Your task to perform on an android device: find which apps use the phone's location Image 0: 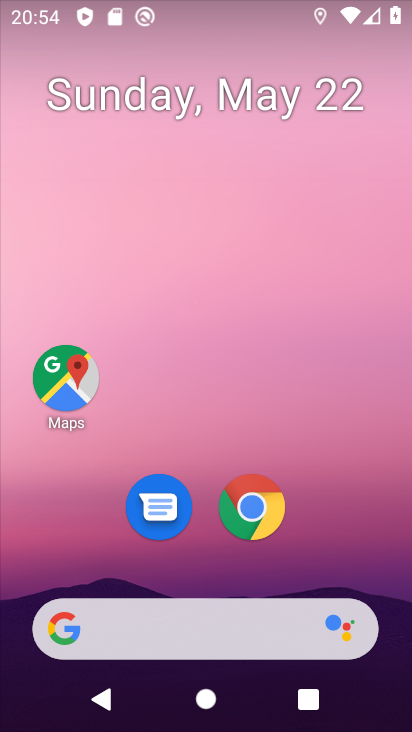
Step 0: drag from (223, 592) to (99, 112)
Your task to perform on an android device: find which apps use the phone's location Image 1: 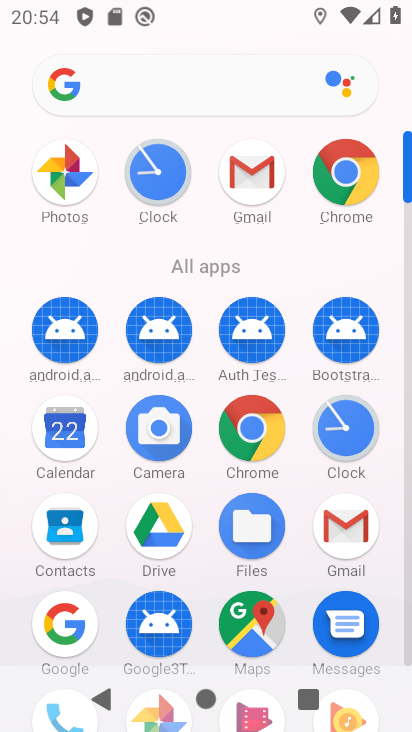
Step 1: drag from (217, 572) to (109, 232)
Your task to perform on an android device: find which apps use the phone's location Image 2: 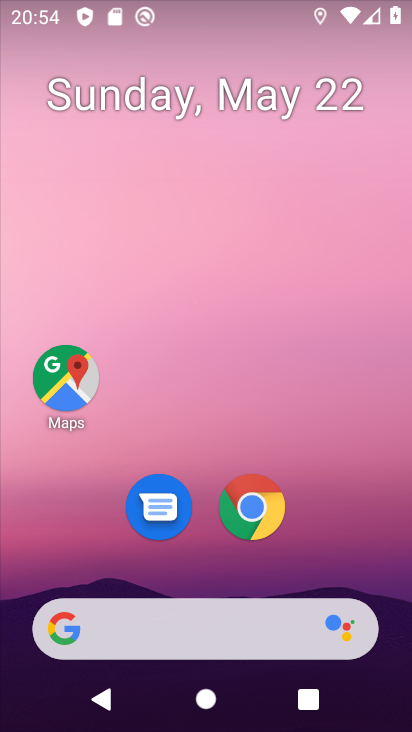
Step 2: drag from (206, 592) to (122, 163)
Your task to perform on an android device: find which apps use the phone's location Image 3: 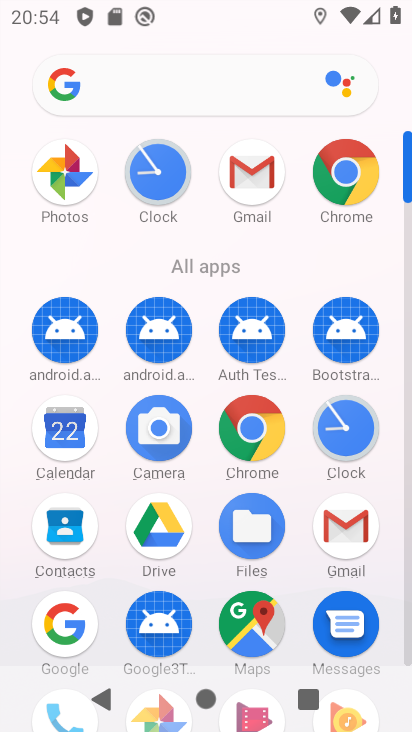
Step 3: drag from (210, 583) to (139, 117)
Your task to perform on an android device: find which apps use the phone's location Image 4: 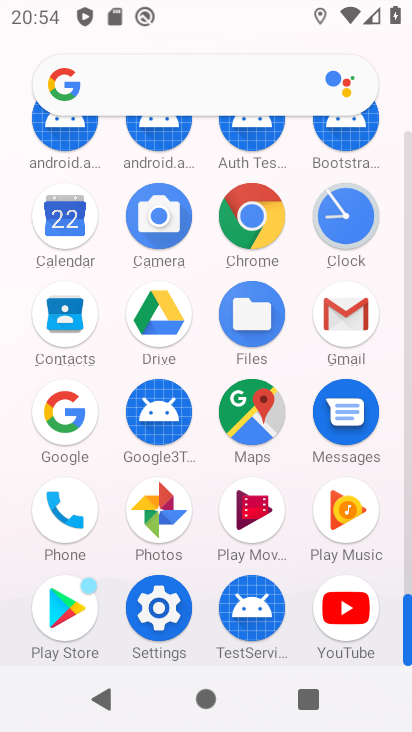
Step 4: click (166, 604)
Your task to perform on an android device: find which apps use the phone's location Image 5: 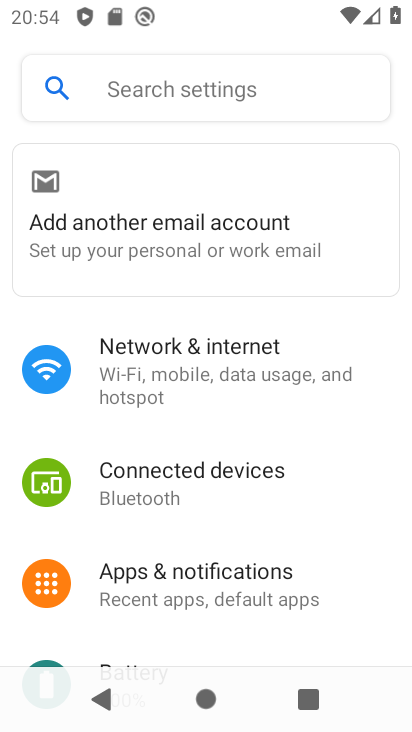
Step 5: click (166, 604)
Your task to perform on an android device: find which apps use the phone's location Image 6: 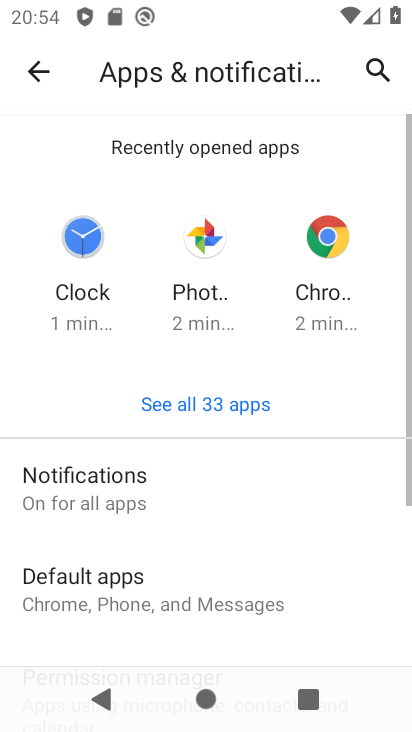
Step 6: click (47, 60)
Your task to perform on an android device: find which apps use the phone's location Image 7: 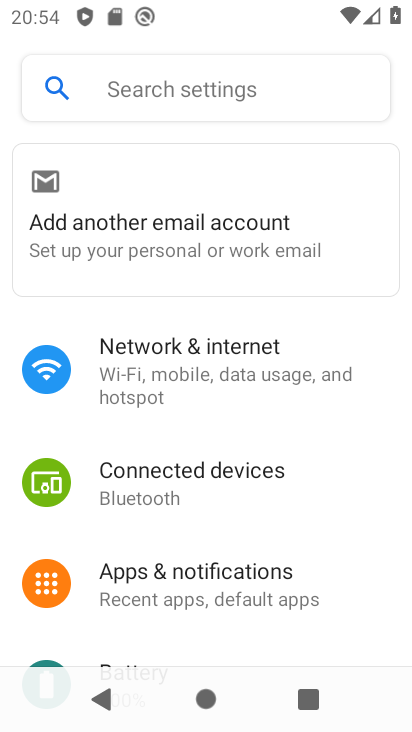
Step 7: drag from (219, 474) to (116, 156)
Your task to perform on an android device: find which apps use the phone's location Image 8: 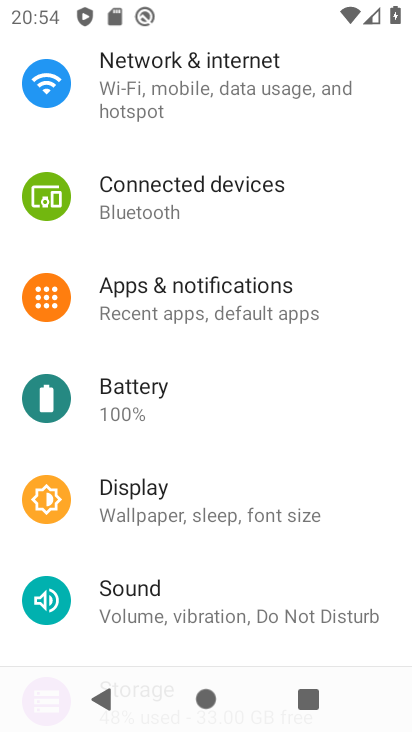
Step 8: drag from (223, 490) to (110, 119)
Your task to perform on an android device: find which apps use the phone's location Image 9: 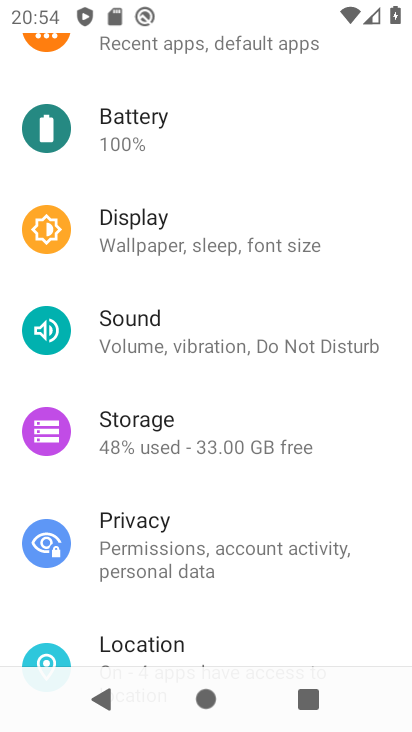
Step 9: click (167, 637)
Your task to perform on an android device: find which apps use the phone's location Image 10: 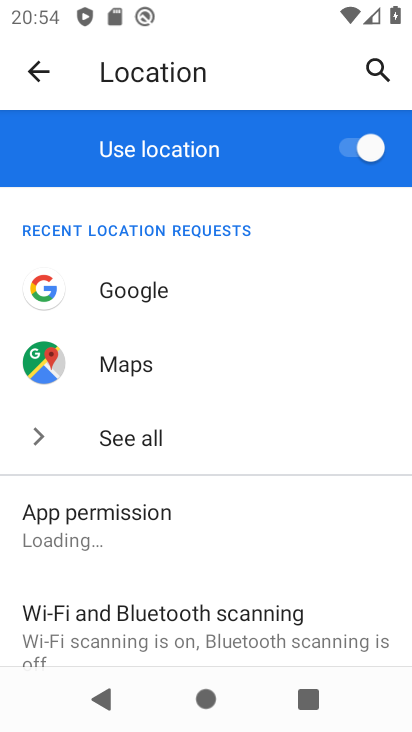
Step 10: click (61, 527)
Your task to perform on an android device: find which apps use the phone's location Image 11: 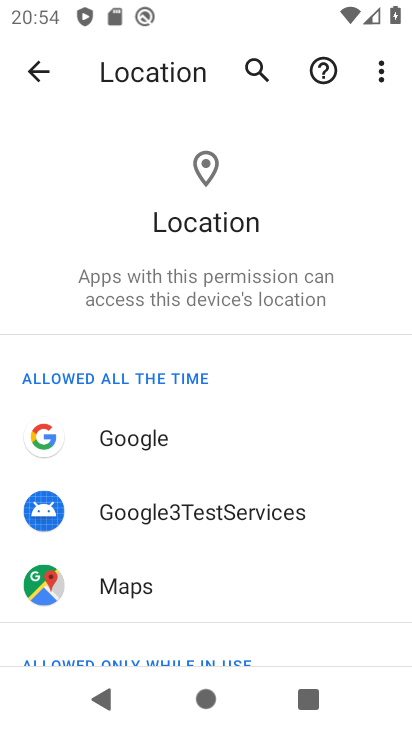
Step 11: task complete